Your task to perform on an android device: delete the emails in spam in the gmail app Image 0: 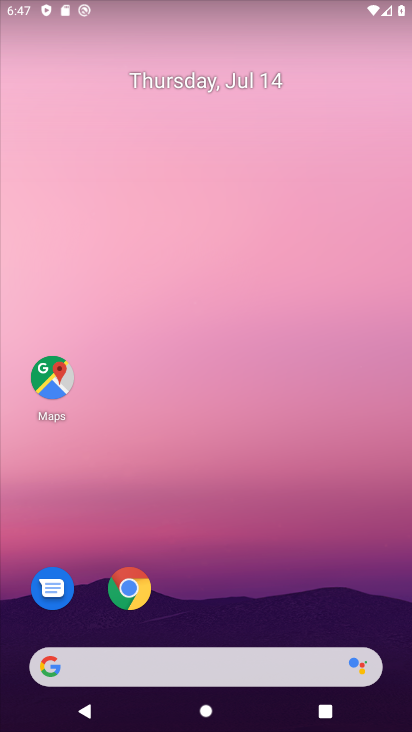
Step 0: drag from (408, 619) to (312, 15)
Your task to perform on an android device: delete the emails in spam in the gmail app Image 1: 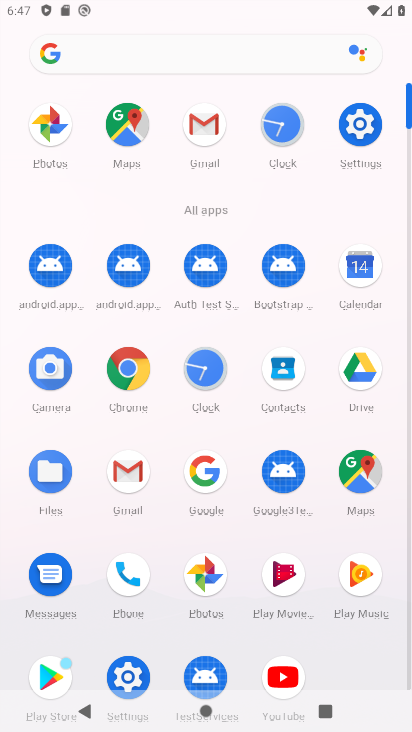
Step 1: click (211, 125)
Your task to perform on an android device: delete the emails in spam in the gmail app Image 2: 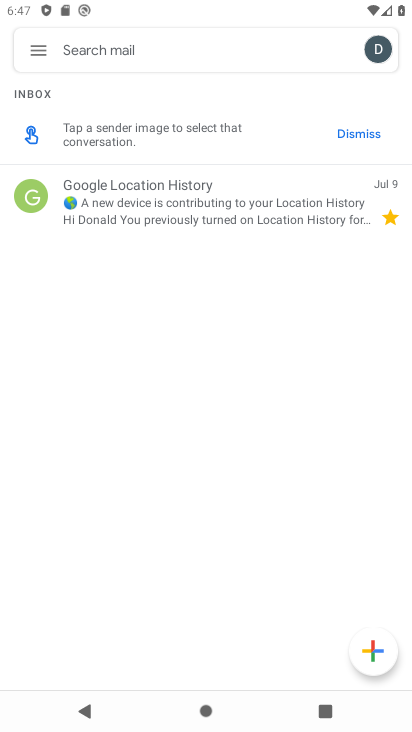
Step 2: click (33, 42)
Your task to perform on an android device: delete the emails in spam in the gmail app Image 3: 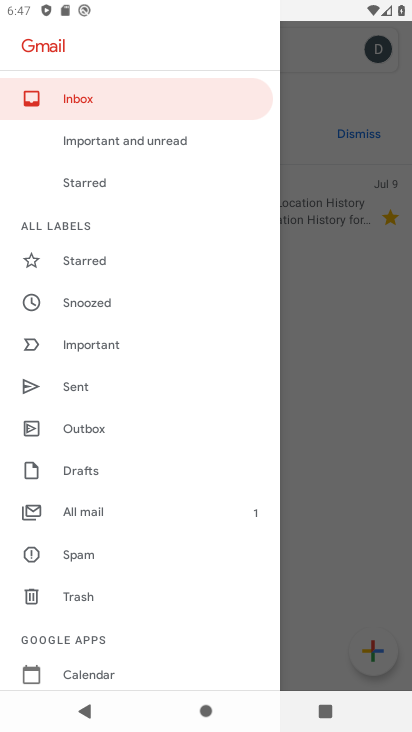
Step 3: click (122, 554)
Your task to perform on an android device: delete the emails in spam in the gmail app Image 4: 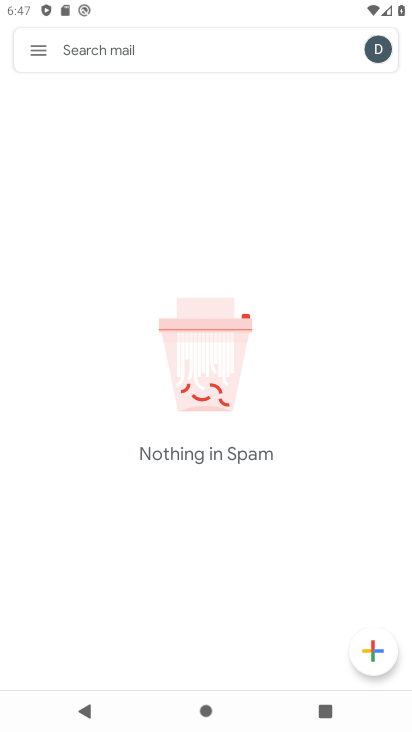
Step 4: task complete